Your task to perform on an android device: Open Yahoo.com Image 0: 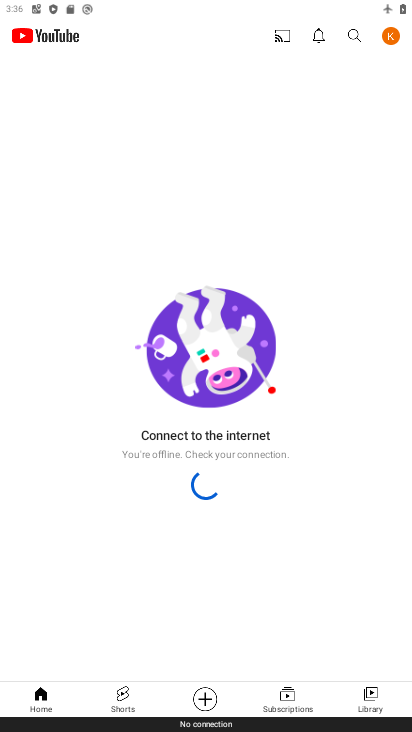
Step 0: press home button
Your task to perform on an android device: Open Yahoo.com Image 1: 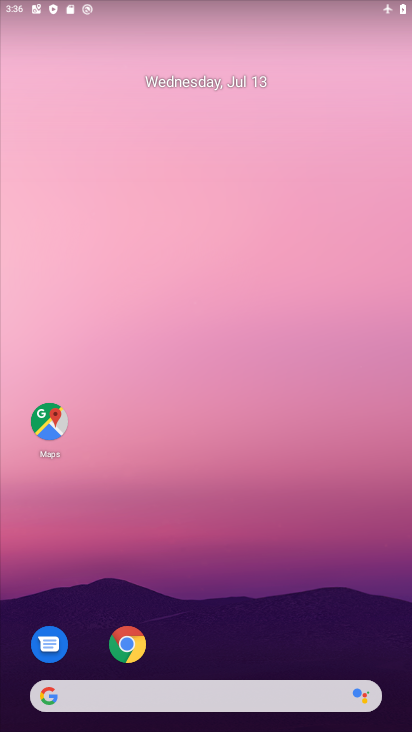
Step 1: drag from (301, 558) to (322, 0)
Your task to perform on an android device: Open Yahoo.com Image 2: 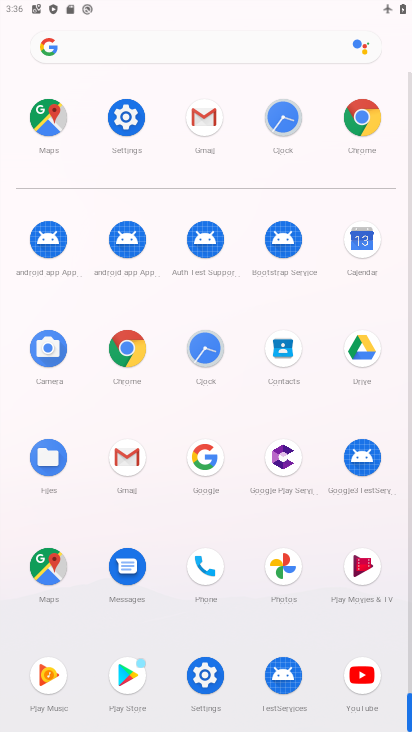
Step 2: click (365, 117)
Your task to perform on an android device: Open Yahoo.com Image 3: 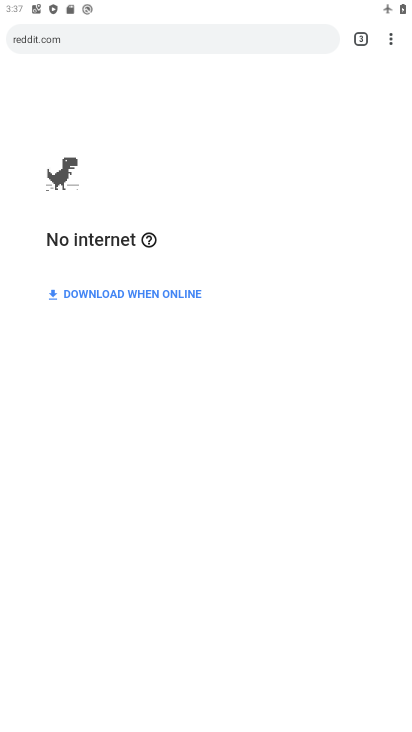
Step 3: click (123, 33)
Your task to perform on an android device: Open Yahoo.com Image 4: 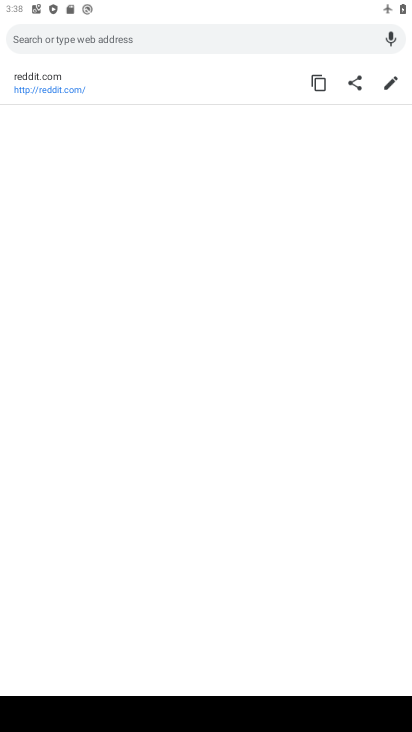
Step 4: type "yahoo.com"
Your task to perform on an android device: Open Yahoo.com Image 5: 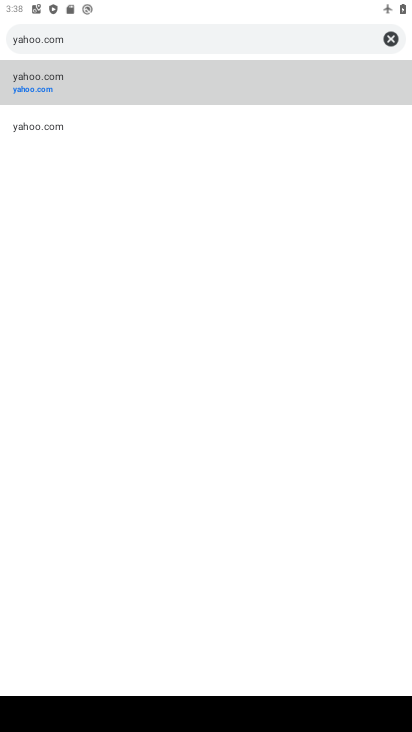
Step 5: click (59, 93)
Your task to perform on an android device: Open Yahoo.com Image 6: 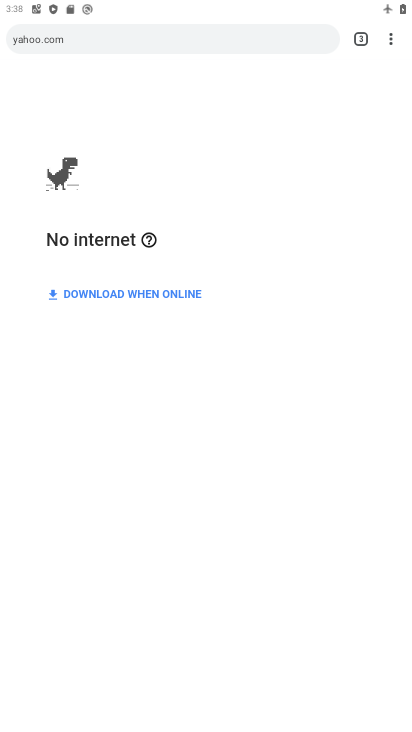
Step 6: task complete